Your task to perform on an android device: make emails show in primary in the gmail app Image 0: 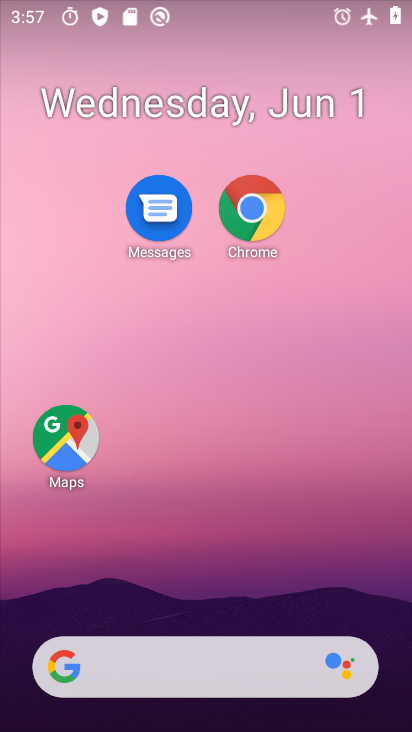
Step 0: drag from (213, 592) to (217, 250)
Your task to perform on an android device: make emails show in primary in the gmail app Image 1: 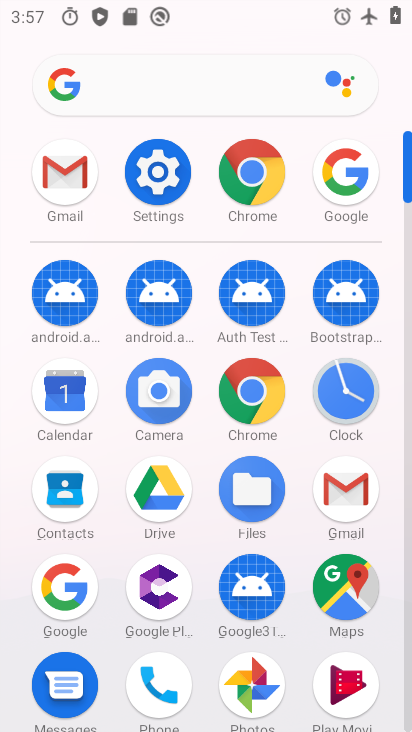
Step 1: click (327, 471)
Your task to perform on an android device: make emails show in primary in the gmail app Image 2: 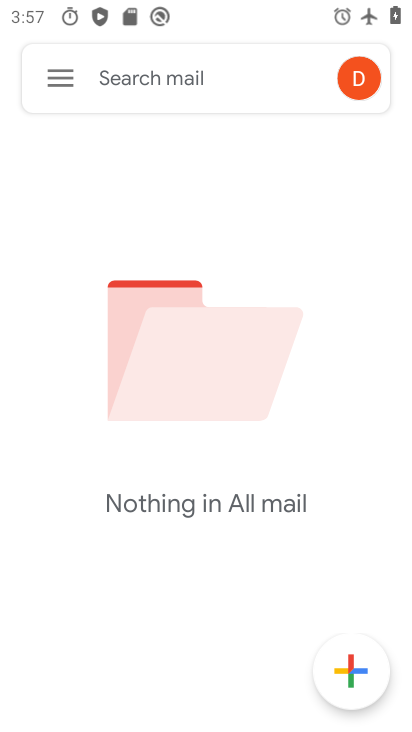
Step 2: click (52, 93)
Your task to perform on an android device: make emails show in primary in the gmail app Image 3: 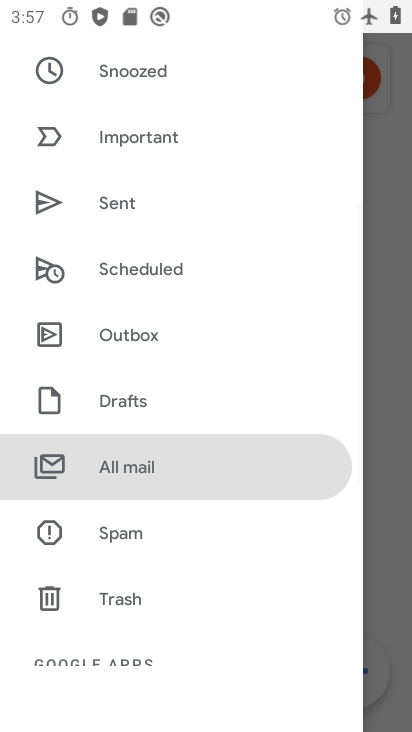
Step 3: drag from (191, 609) to (215, 240)
Your task to perform on an android device: make emails show in primary in the gmail app Image 4: 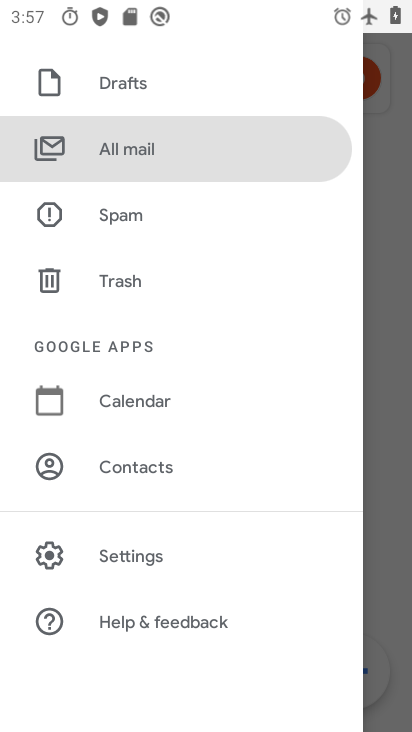
Step 4: click (177, 555)
Your task to perform on an android device: make emails show in primary in the gmail app Image 5: 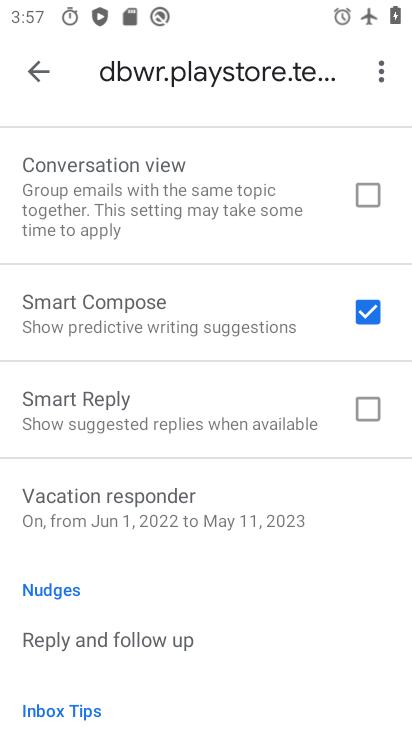
Step 5: drag from (182, 180) to (211, 579)
Your task to perform on an android device: make emails show in primary in the gmail app Image 6: 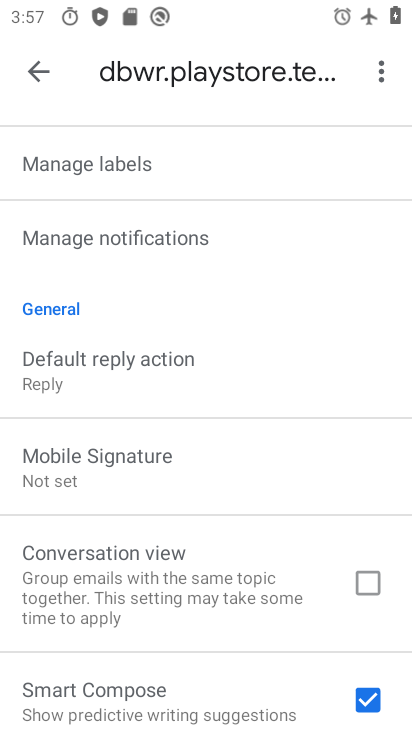
Step 6: drag from (170, 190) to (170, 508)
Your task to perform on an android device: make emails show in primary in the gmail app Image 7: 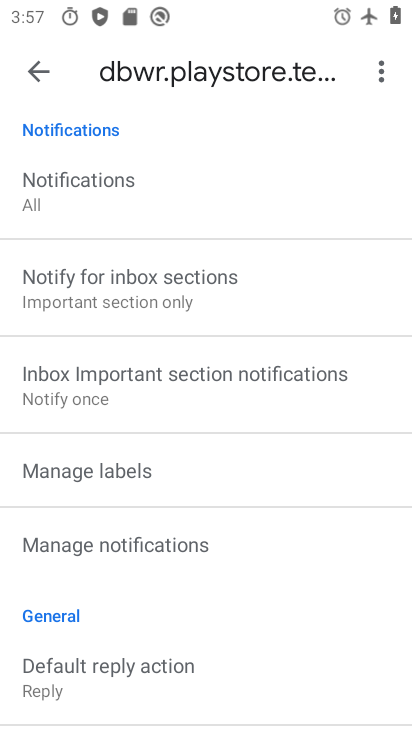
Step 7: drag from (172, 208) to (172, 560)
Your task to perform on an android device: make emails show in primary in the gmail app Image 8: 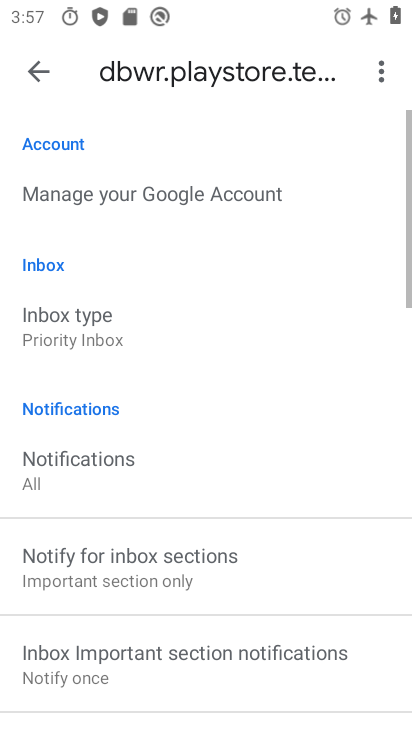
Step 8: click (162, 321)
Your task to perform on an android device: make emails show in primary in the gmail app Image 9: 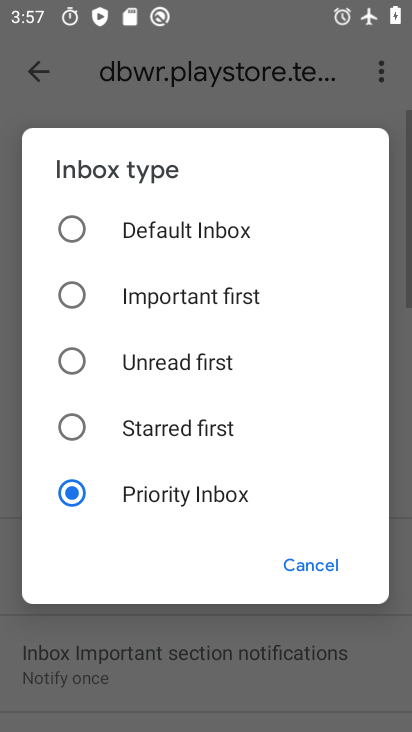
Step 9: click (138, 244)
Your task to perform on an android device: make emails show in primary in the gmail app Image 10: 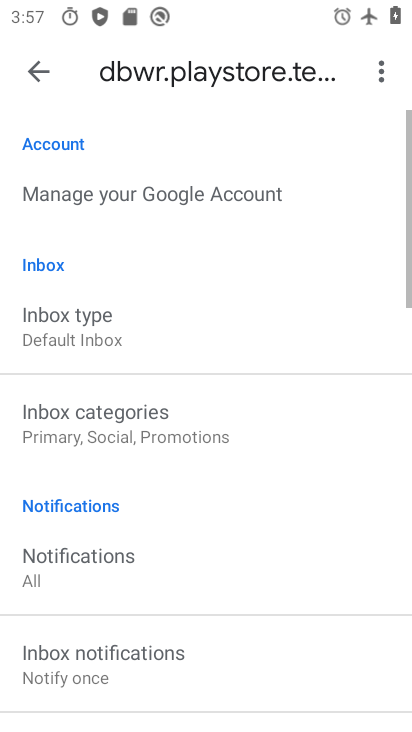
Step 10: click (125, 423)
Your task to perform on an android device: make emails show in primary in the gmail app Image 11: 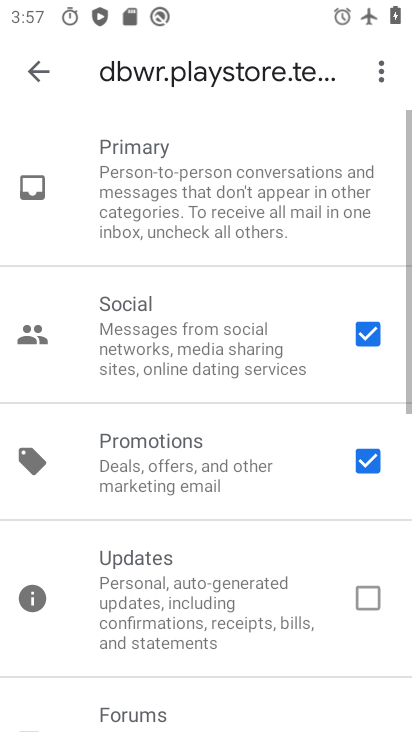
Step 11: click (209, 215)
Your task to perform on an android device: make emails show in primary in the gmail app Image 12: 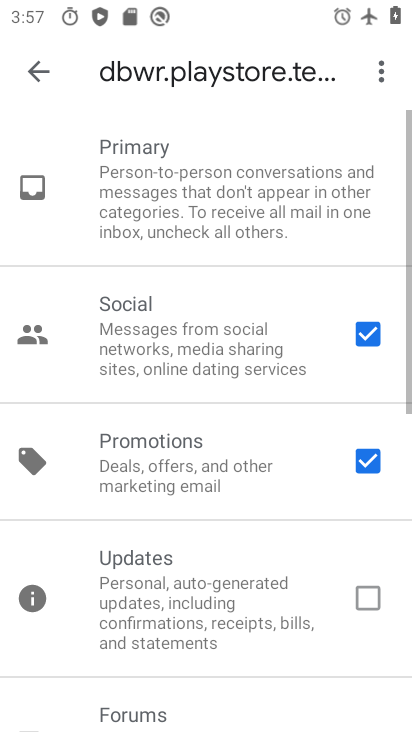
Step 12: task complete